Your task to perform on an android device: Go to Yahoo.com Image 0: 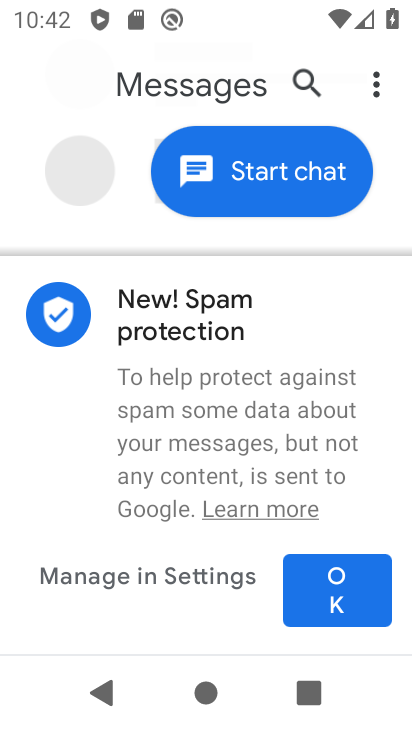
Step 0: press home button
Your task to perform on an android device: Go to Yahoo.com Image 1: 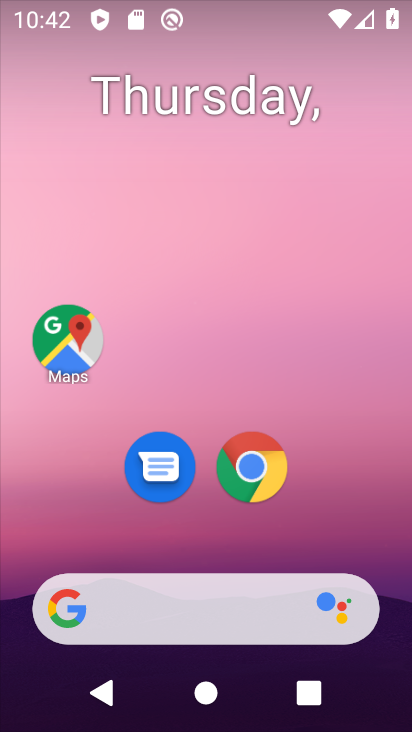
Step 1: click (252, 474)
Your task to perform on an android device: Go to Yahoo.com Image 2: 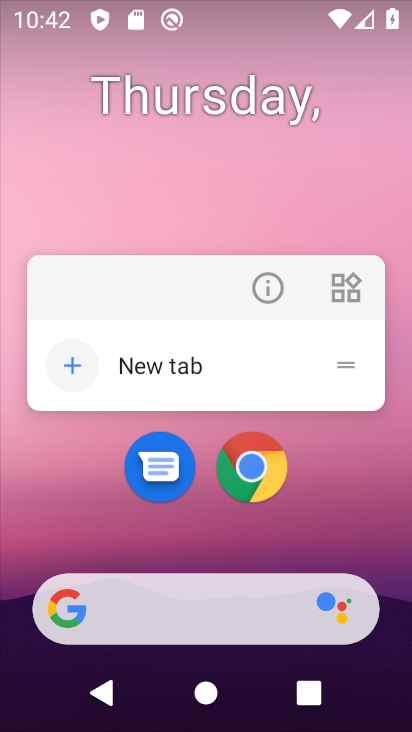
Step 2: click (260, 481)
Your task to perform on an android device: Go to Yahoo.com Image 3: 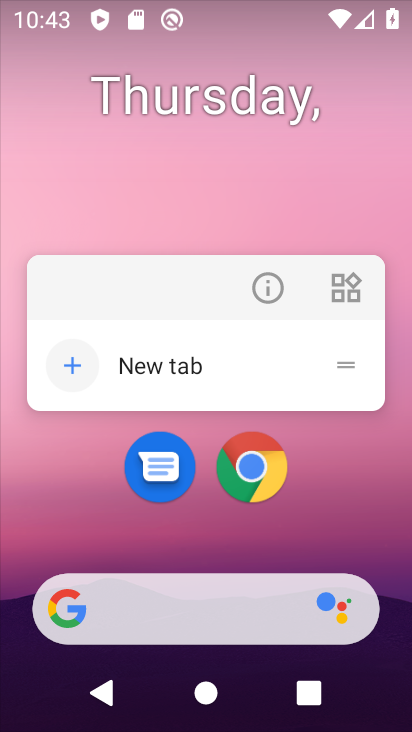
Step 3: click (260, 481)
Your task to perform on an android device: Go to Yahoo.com Image 4: 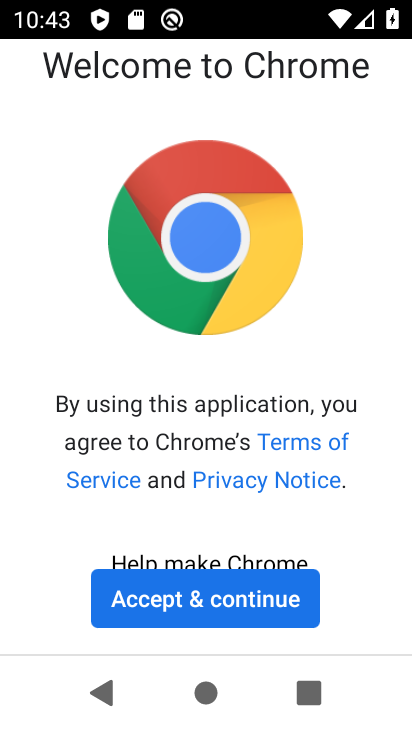
Step 4: click (196, 591)
Your task to perform on an android device: Go to Yahoo.com Image 5: 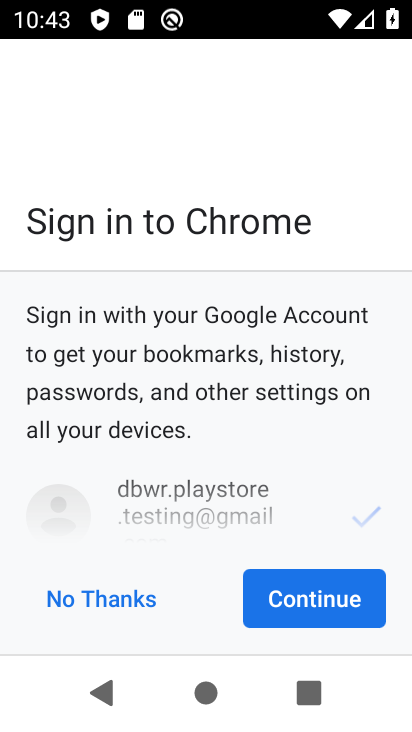
Step 5: click (99, 607)
Your task to perform on an android device: Go to Yahoo.com Image 6: 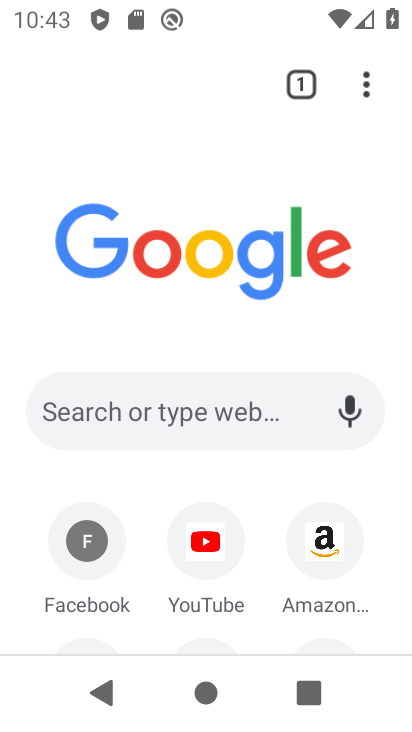
Step 6: drag from (271, 601) to (267, 383)
Your task to perform on an android device: Go to Yahoo.com Image 7: 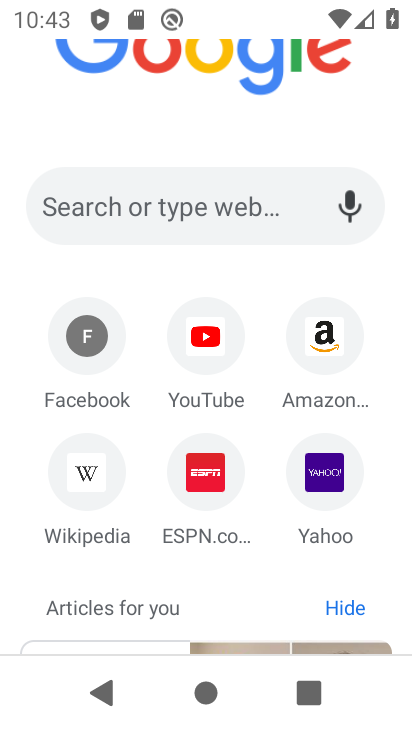
Step 7: click (322, 487)
Your task to perform on an android device: Go to Yahoo.com Image 8: 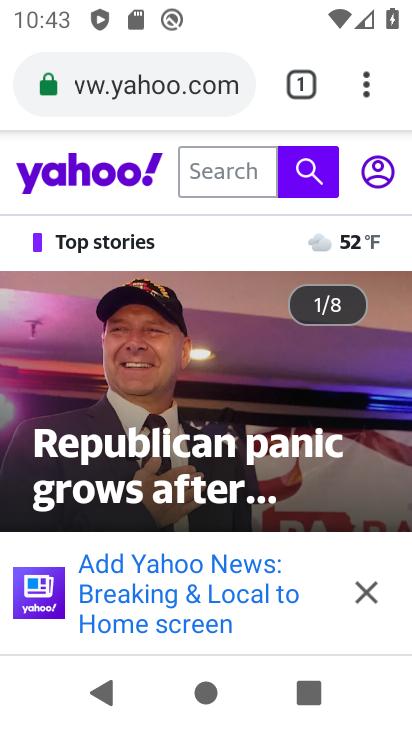
Step 8: task complete